Your task to perform on an android device: refresh tabs in the chrome app Image 0: 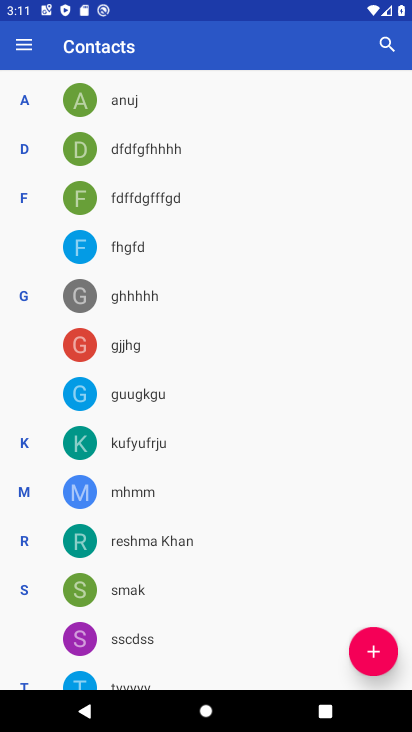
Step 0: press home button
Your task to perform on an android device: refresh tabs in the chrome app Image 1: 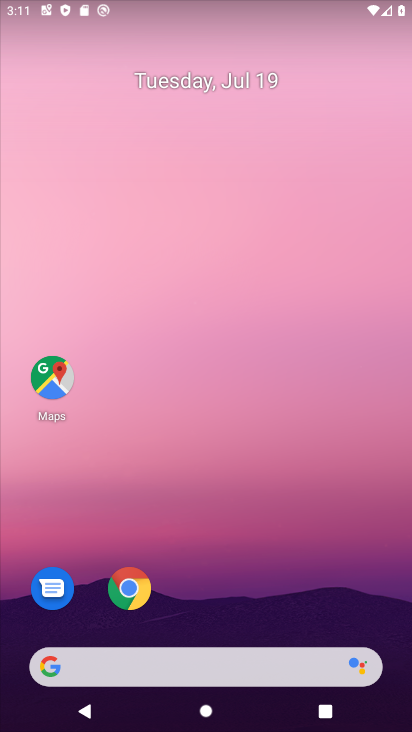
Step 1: click (128, 595)
Your task to perform on an android device: refresh tabs in the chrome app Image 2: 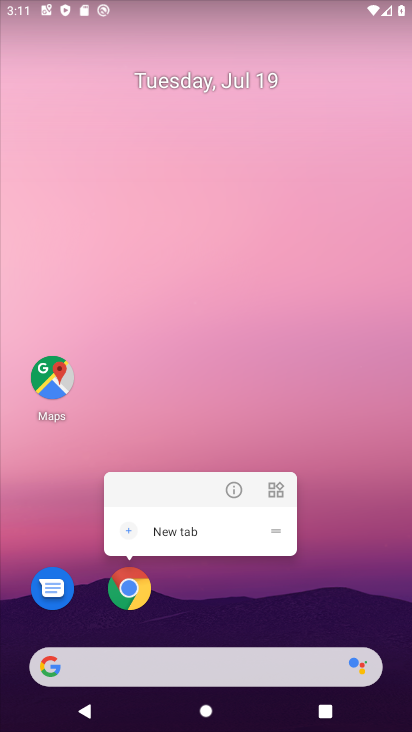
Step 2: click (128, 595)
Your task to perform on an android device: refresh tabs in the chrome app Image 3: 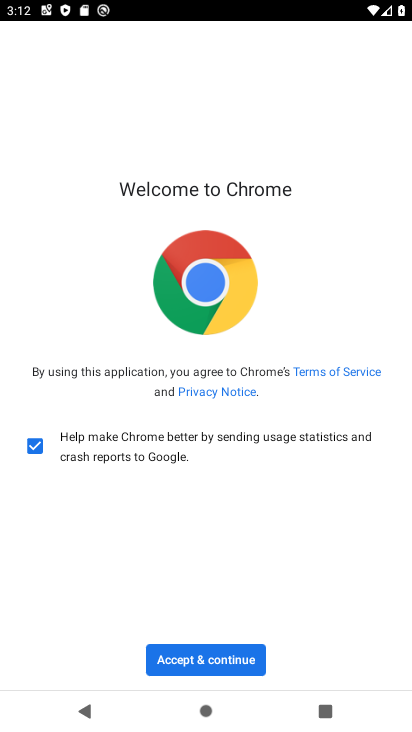
Step 3: click (193, 647)
Your task to perform on an android device: refresh tabs in the chrome app Image 4: 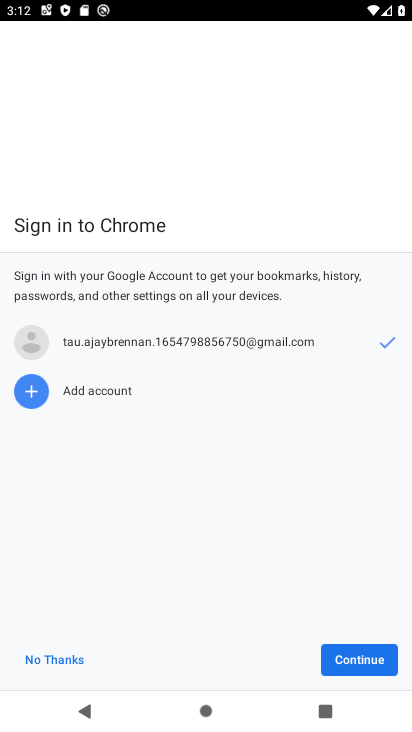
Step 4: click (347, 651)
Your task to perform on an android device: refresh tabs in the chrome app Image 5: 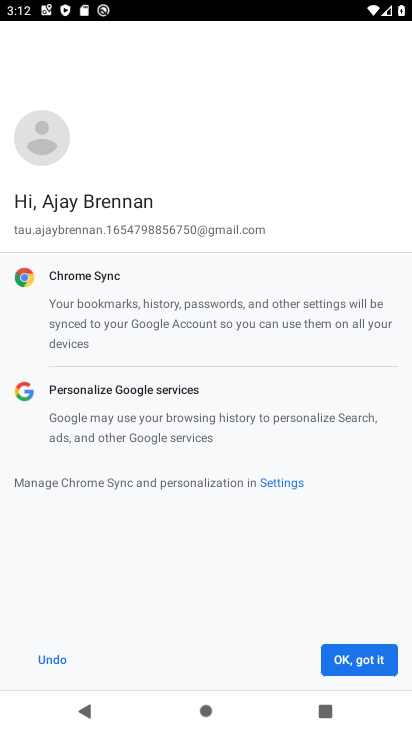
Step 5: click (330, 655)
Your task to perform on an android device: refresh tabs in the chrome app Image 6: 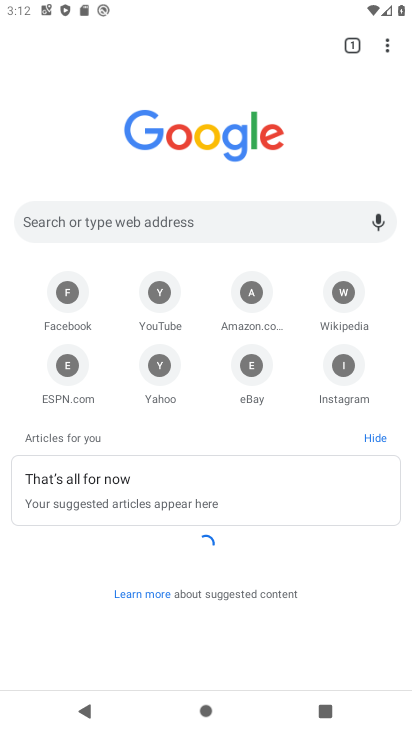
Step 6: click (390, 44)
Your task to perform on an android device: refresh tabs in the chrome app Image 7: 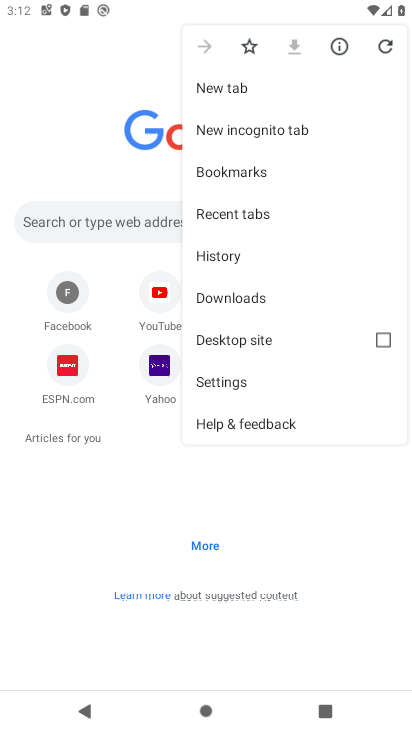
Step 7: click (390, 47)
Your task to perform on an android device: refresh tabs in the chrome app Image 8: 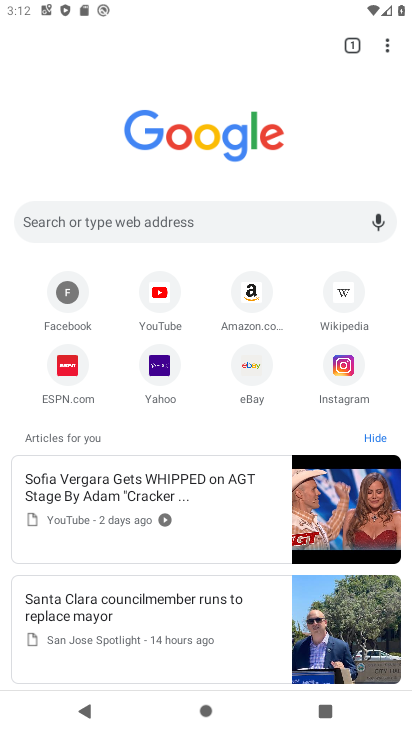
Step 8: task complete